Your task to perform on an android device: Is it going to rain tomorrow? Image 0: 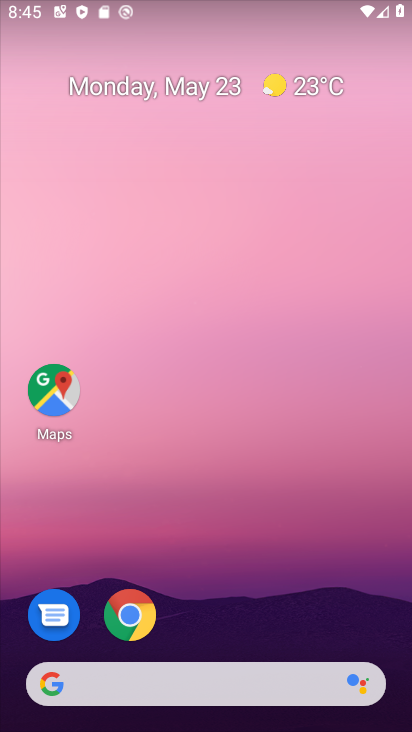
Step 0: drag from (259, 601) to (187, 149)
Your task to perform on an android device: Is it going to rain tomorrow? Image 1: 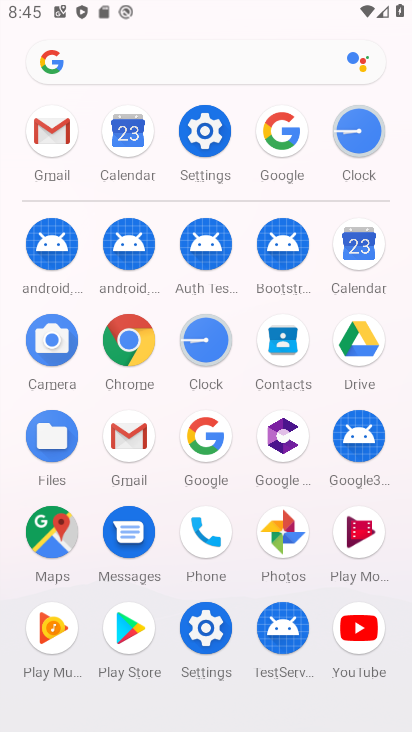
Step 1: click (202, 437)
Your task to perform on an android device: Is it going to rain tomorrow? Image 2: 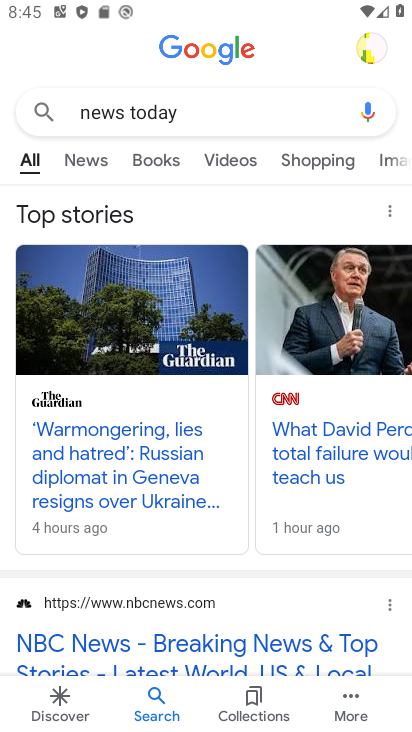
Step 2: click (275, 121)
Your task to perform on an android device: Is it going to rain tomorrow? Image 3: 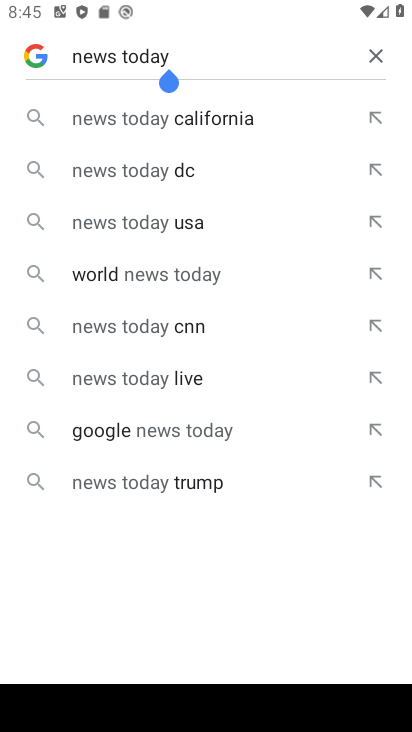
Step 3: click (379, 57)
Your task to perform on an android device: Is it going to rain tomorrow? Image 4: 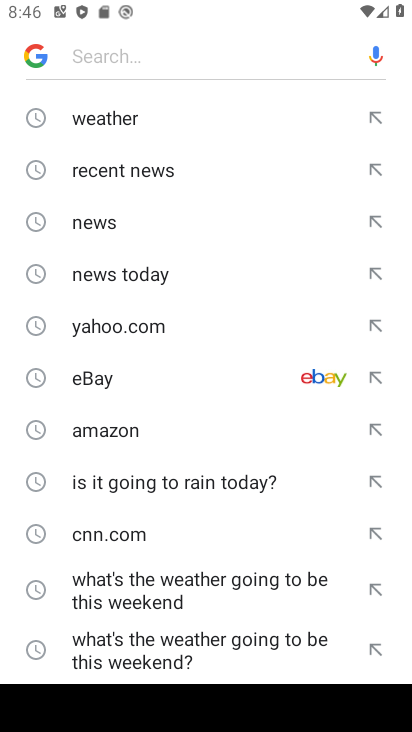
Step 4: type "Is it going to rain tomorrow"
Your task to perform on an android device: Is it going to rain tomorrow? Image 5: 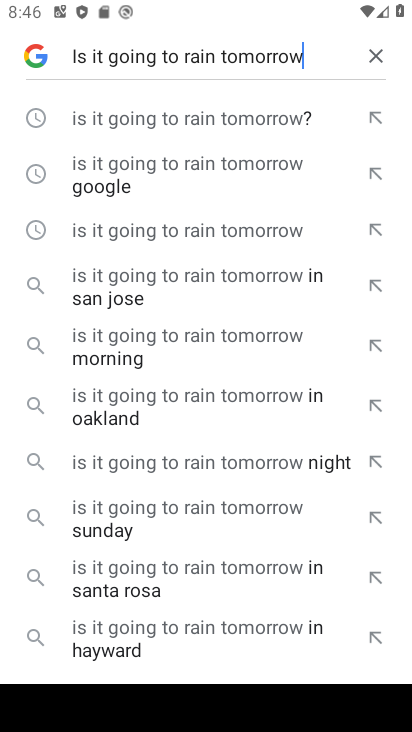
Step 5: click (191, 113)
Your task to perform on an android device: Is it going to rain tomorrow? Image 6: 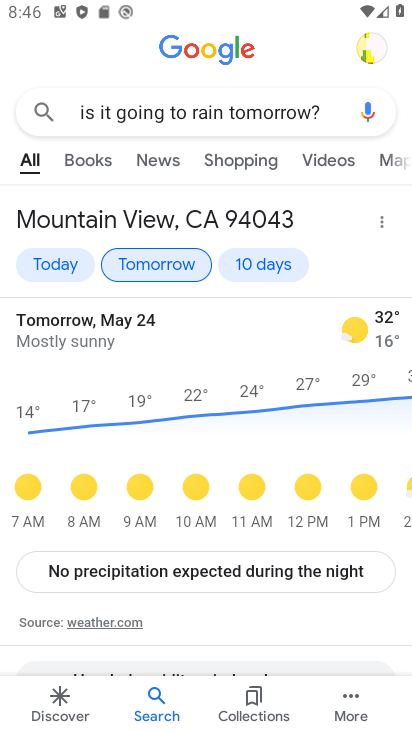
Step 6: task complete